Your task to perform on an android device: Open internet settings Image 0: 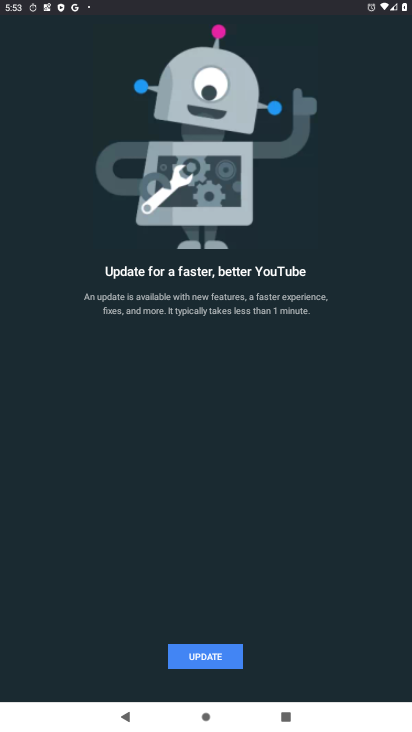
Step 0: press home button
Your task to perform on an android device: Open internet settings Image 1: 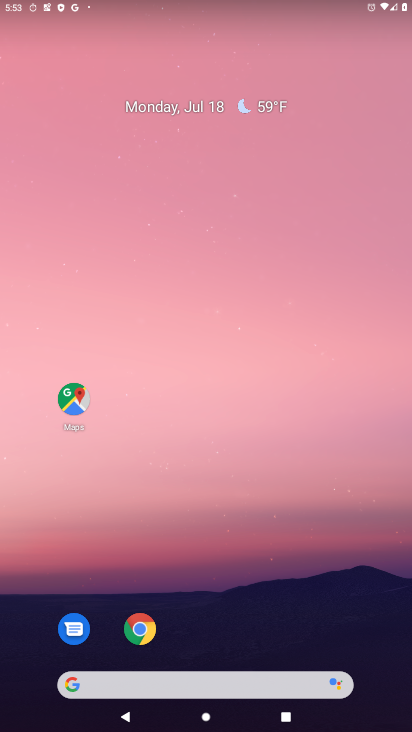
Step 1: drag from (284, 550) to (343, 97)
Your task to perform on an android device: Open internet settings Image 2: 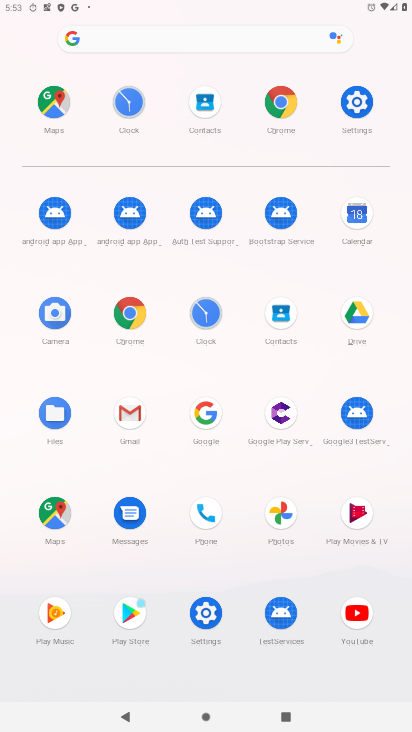
Step 2: click (374, 104)
Your task to perform on an android device: Open internet settings Image 3: 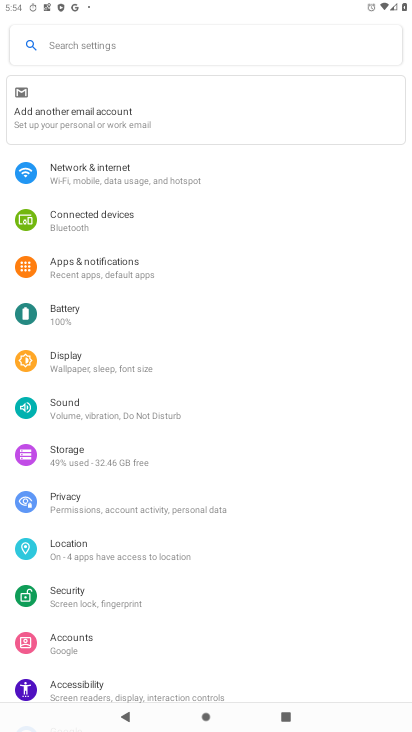
Step 3: click (129, 176)
Your task to perform on an android device: Open internet settings Image 4: 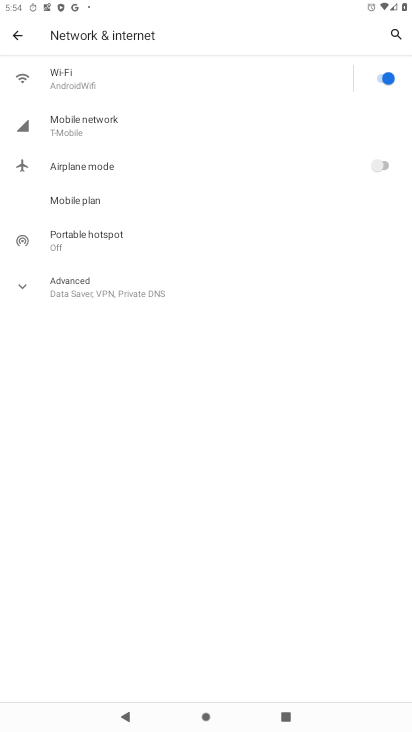
Step 4: click (48, 285)
Your task to perform on an android device: Open internet settings Image 5: 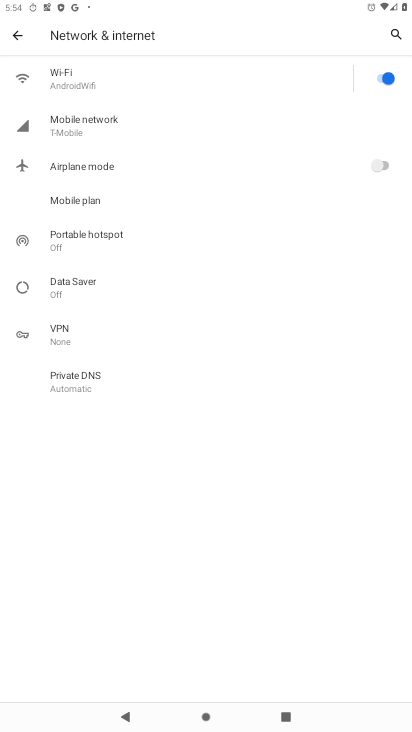
Step 5: task complete